Your task to perform on an android device: Search for sushi restaurants on Maps Image 0: 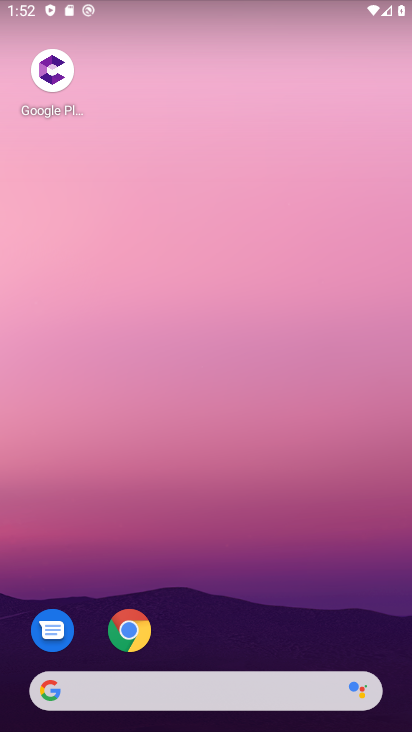
Step 0: drag from (221, 622) to (232, 275)
Your task to perform on an android device: Search for sushi restaurants on Maps Image 1: 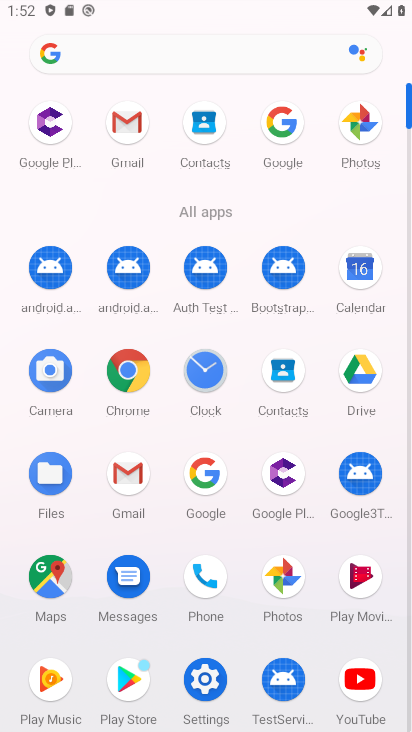
Step 1: click (62, 567)
Your task to perform on an android device: Search for sushi restaurants on Maps Image 2: 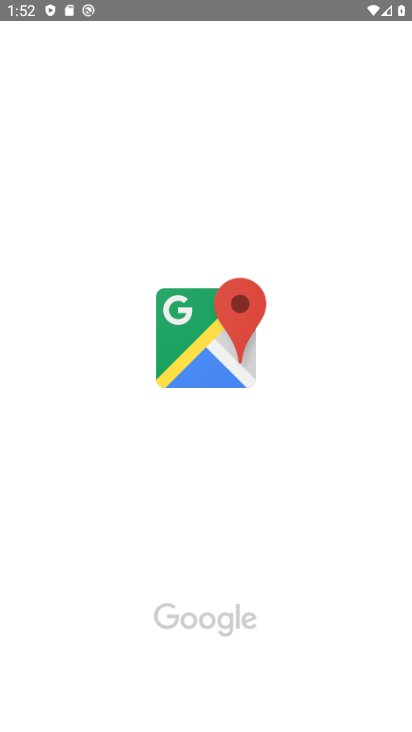
Step 2: click (173, 474)
Your task to perform on an android device: Search for sushi restaurants on Maps Image 3: 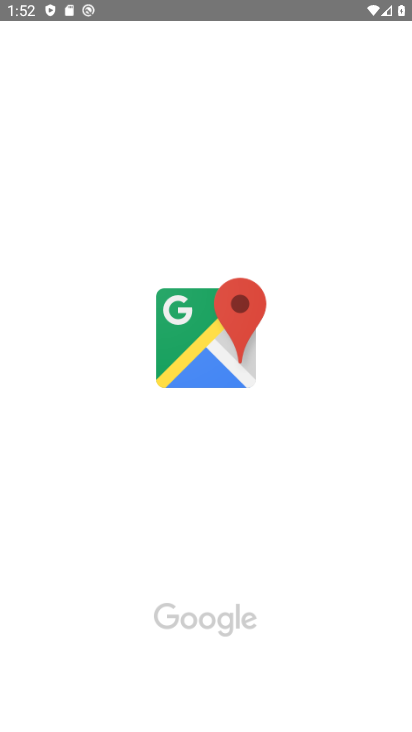
Step 3: click (173, 474)
Your task to perform on an android device: Search for sushi restaurants on Maps Image 4: 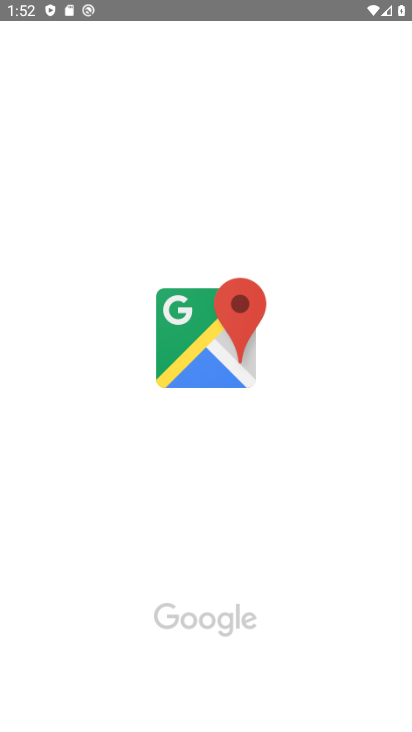
Step 4: click (173, 474)
Your task to perform on an android device: Search for sushi restaurants on Maps Image 5: 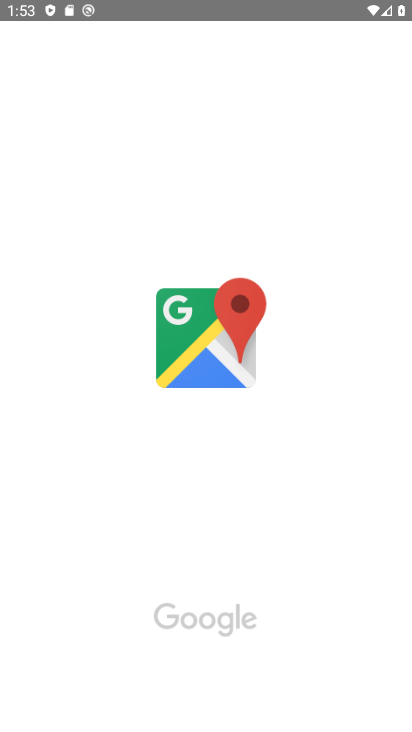
Step 5: task complete